Your task to perform on an android device: turn on showing notifications on the lock screen Image 0: 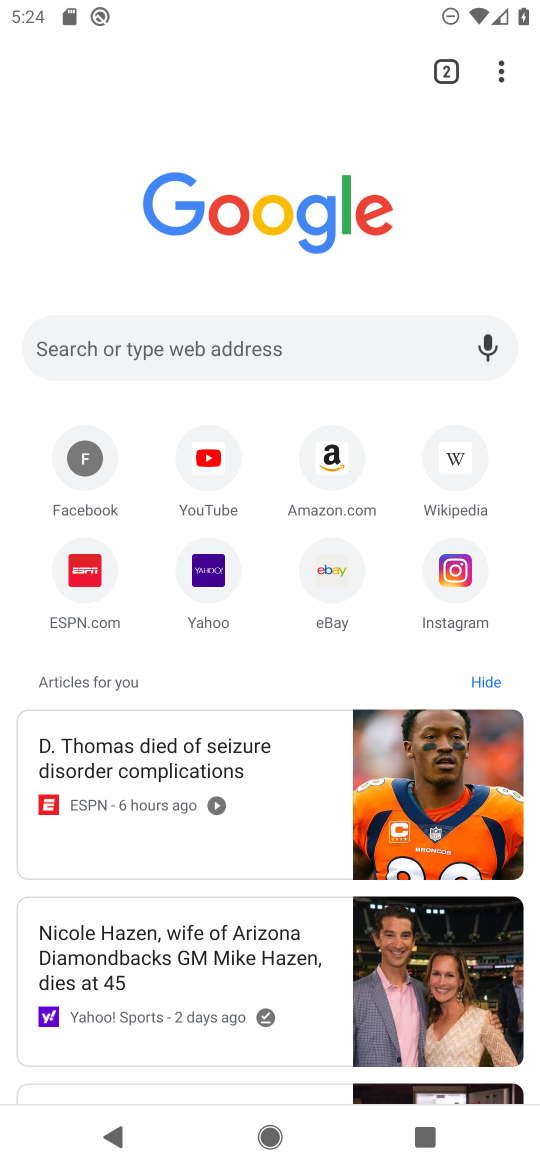
Step 0: press home button
Your task to perform on an android device: turn on showing notifications on the lock screen Image 1: 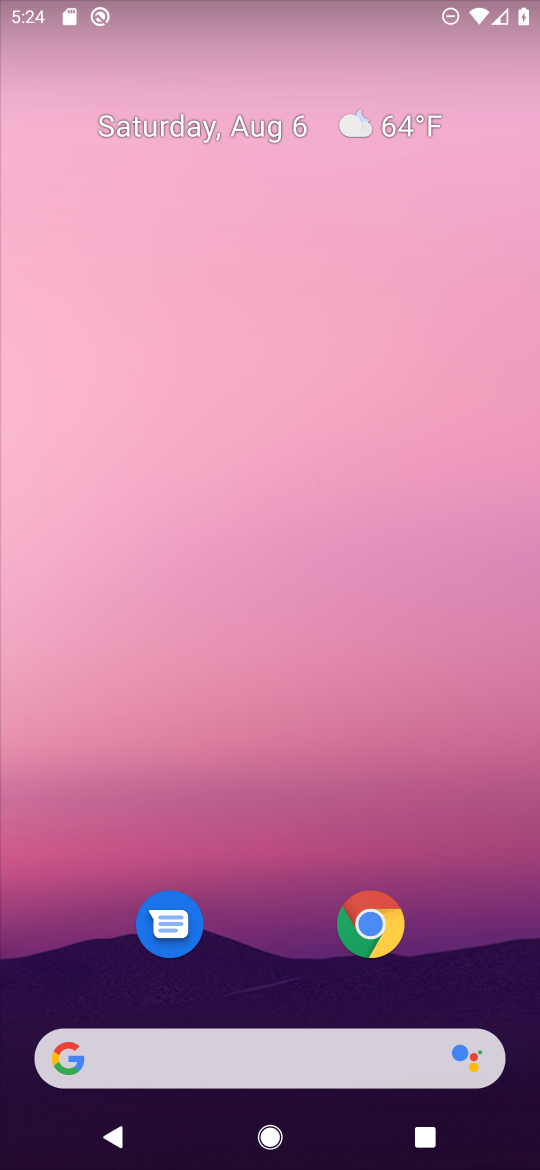
Step 1: drag from (266, 384) to (246, 0)
Your task to perform on an android device: turn on showing notifications on the lock screen Image 2: 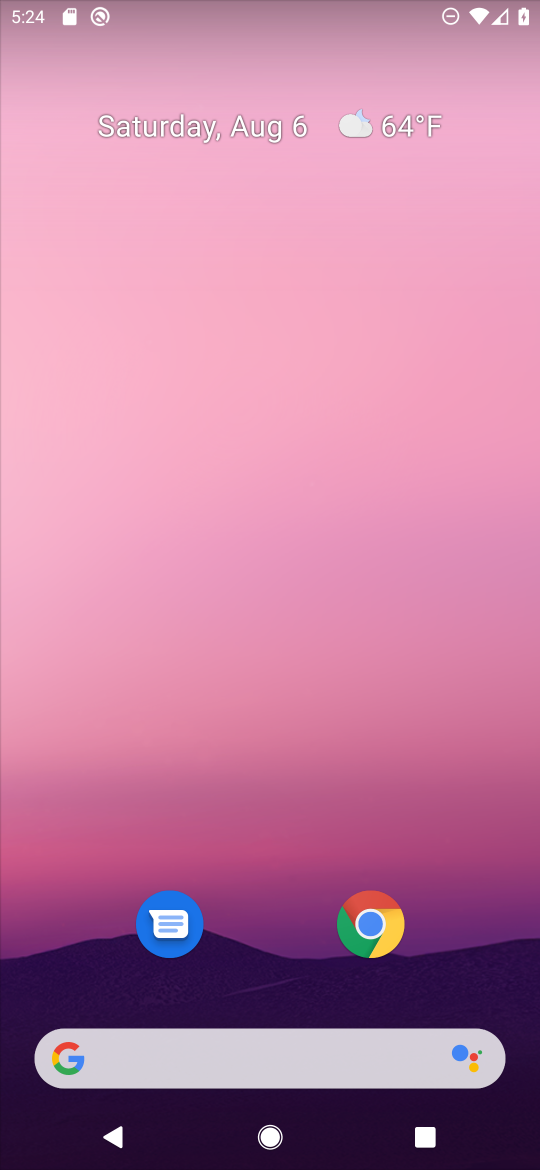
Step 2: drag from (231, 898) to (208, 43)
Your task to perform on an android device: turn on showing notifications on the lock screen Image 3: 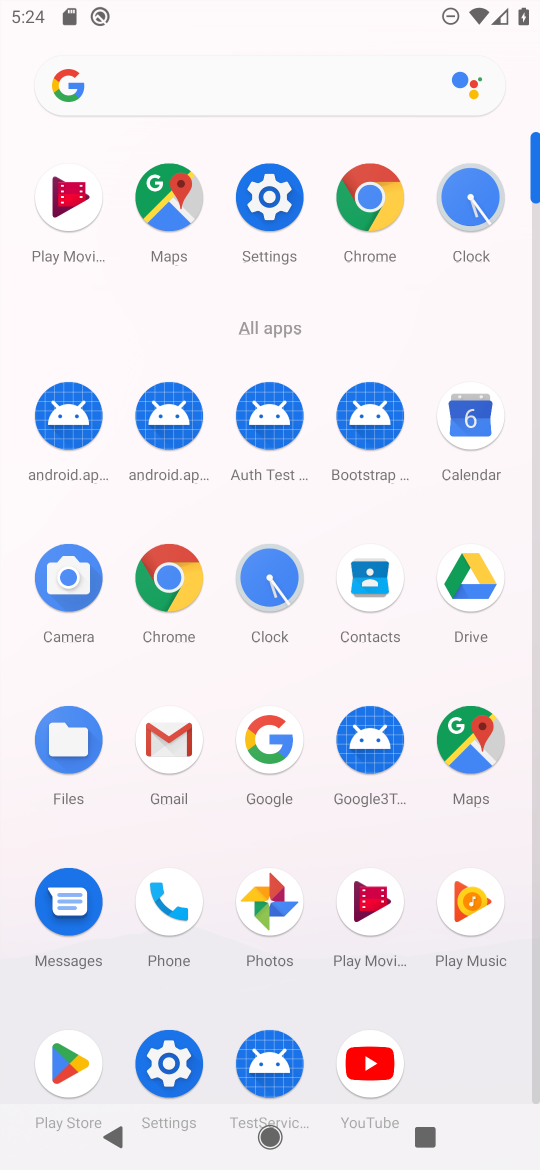
Step 3: click (270, 199)
Your task to perform on an android device: turn on showing notifications on the lock screen Image 4: 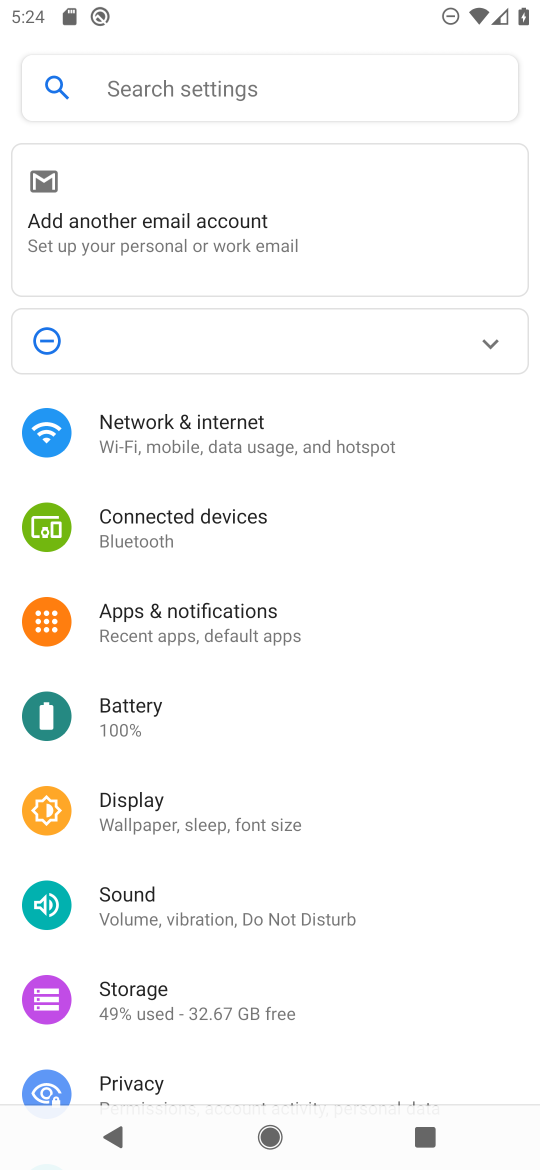
Step 4: click (159, 615)
Your task to perform on an android device: turn on showing notifications on the lock screen Image 5: 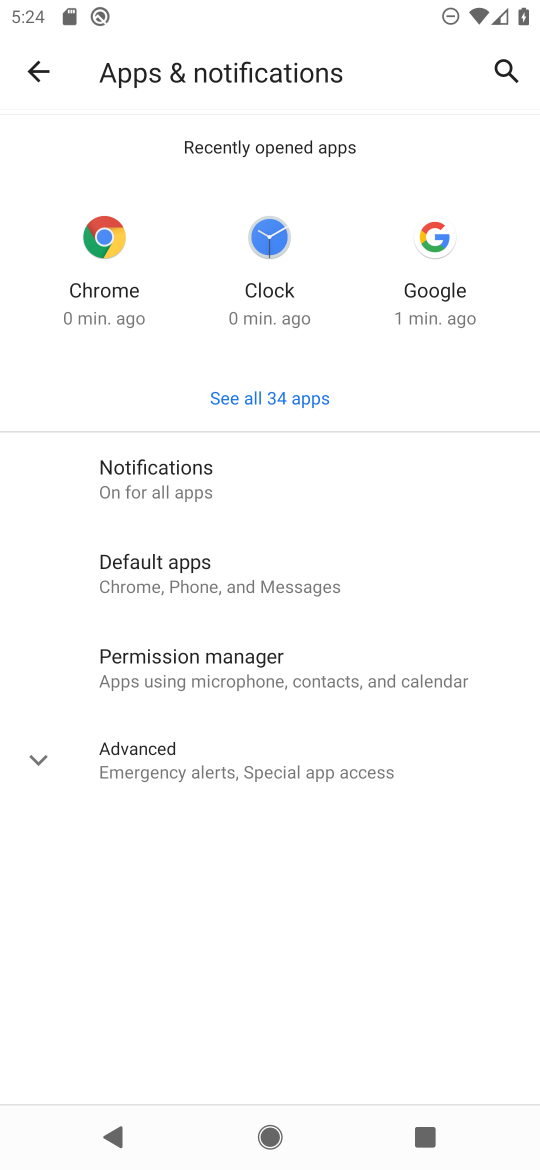
Step 5: click (149, 462)
Your task to perform on an android device: turn on showing notifications on the lock screen Image 6: 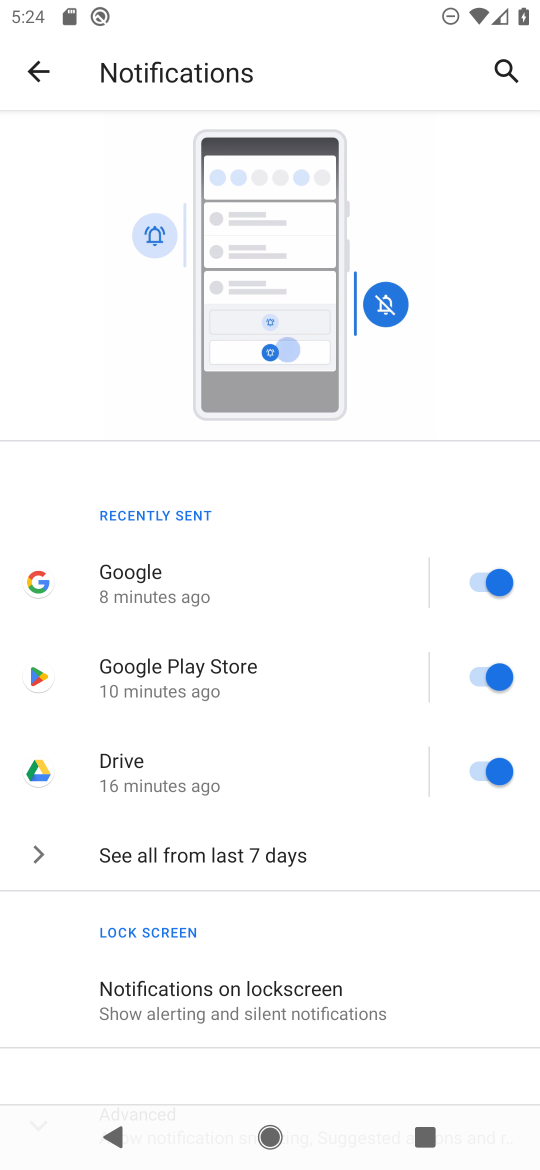
Step 6: click (238, 980)
Your task to perform on an android device: turn on showing notifications on the lock screen Image 7: 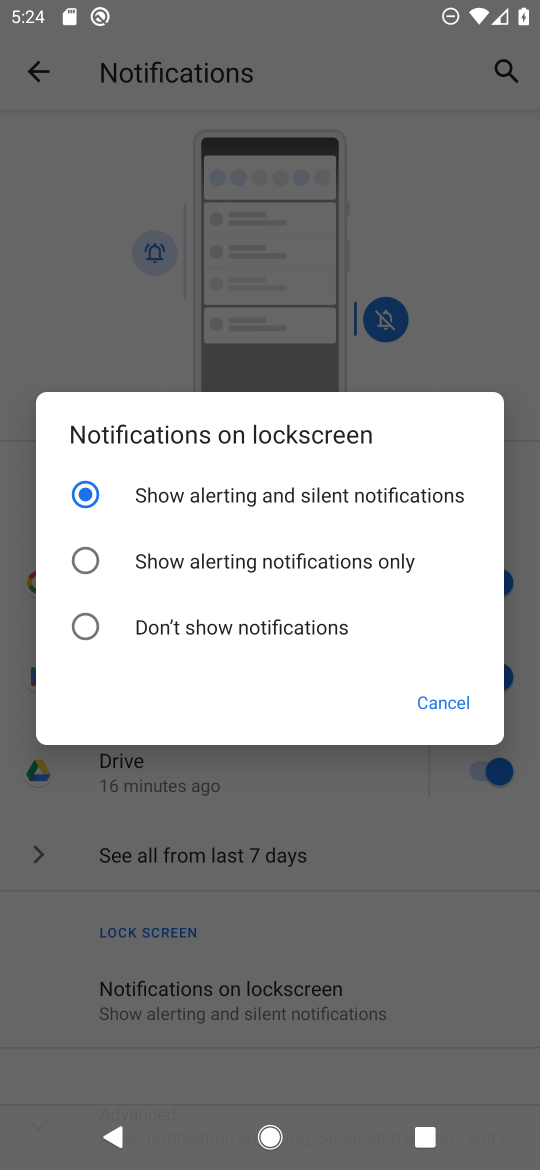
Step 7: task complete